Your task to perform on an android device: Show me popular games on the Play Store Image 0: 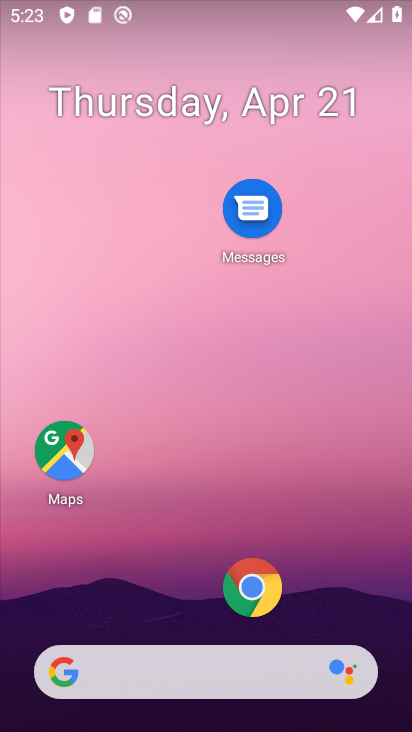
Step 0: drag from (204, 612) to (213, 79)
Your task to perform on an android device: Show me popular games on the Play Store Image 1: 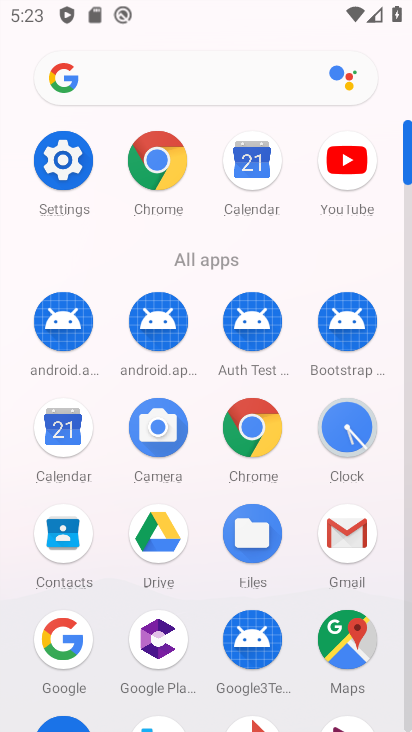
Step 1: drag from (202, 599) to (198, 165)
Your task to perform on an android device: Show me popular games on the Play Store Image 2: 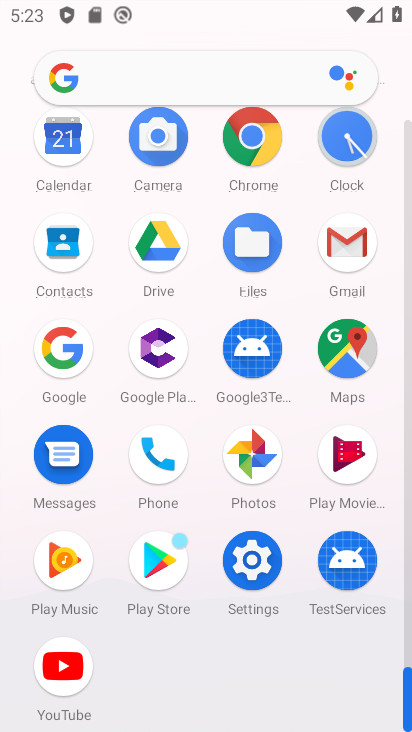
Step 2: click (153, 557)
Your task to perform on an android device: Show me popular games on the Play Store Image 3: 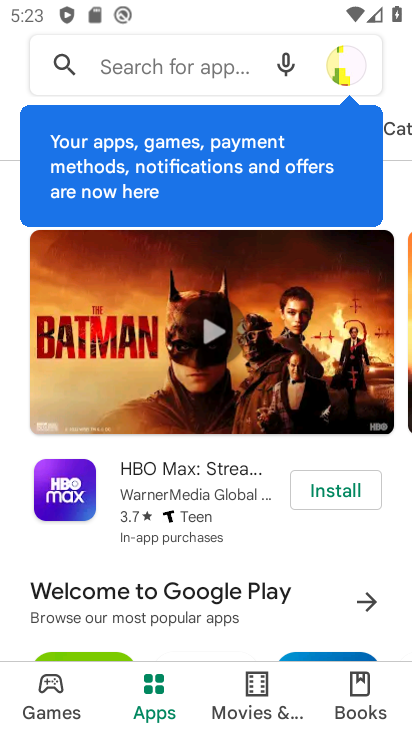
Step 3: click (52, 693)
Your task to perform on an android device: Show me popular games on the Play Store Image 4: 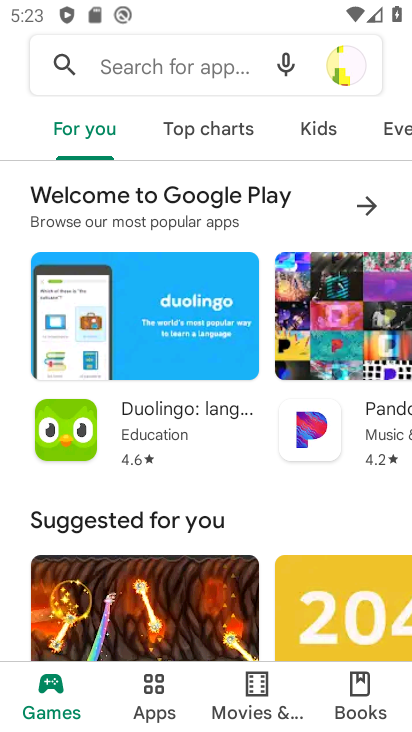
Step 4: drag from (356, 132) to (52, 142)
Your task to perform on an android device: Show me popular games on the Play Store Image 5: 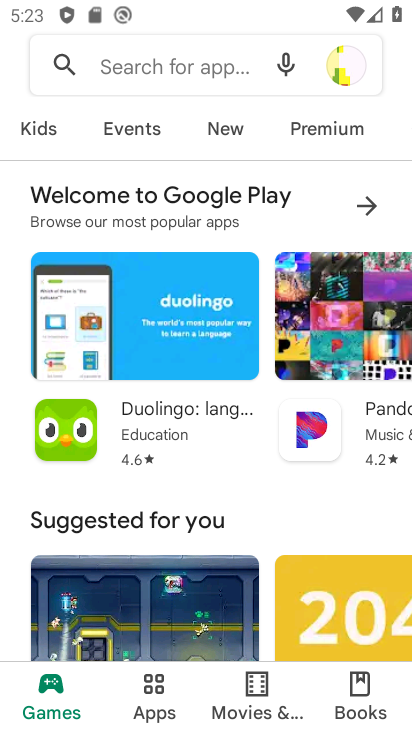
Step 5: drag from (354, 130) to (103, 127)
Your task to perform on an android device: Show me popular games on the Play Store Image 6: 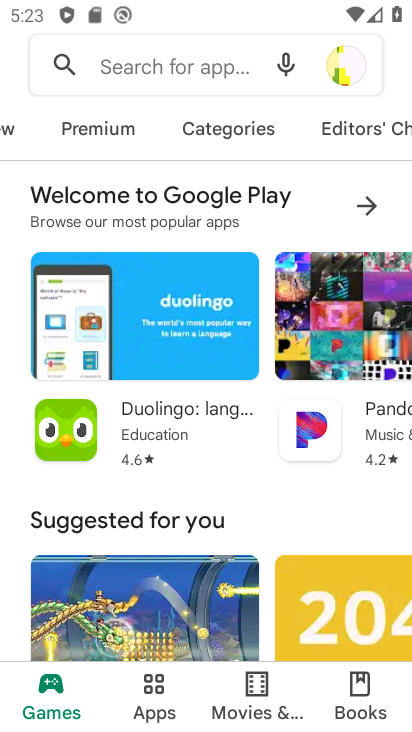
Step 6: click (227, 136)
Your task to perform on an android device: Show me popular games on the Play Store Image 7: 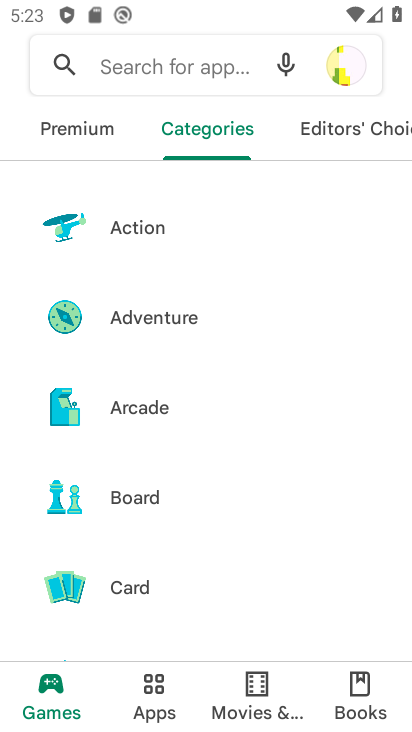
Step 7: drag from (218, 562) to (231, 13)
Your task to perform on an android device: Show me popular games on the Play Store Image 8: 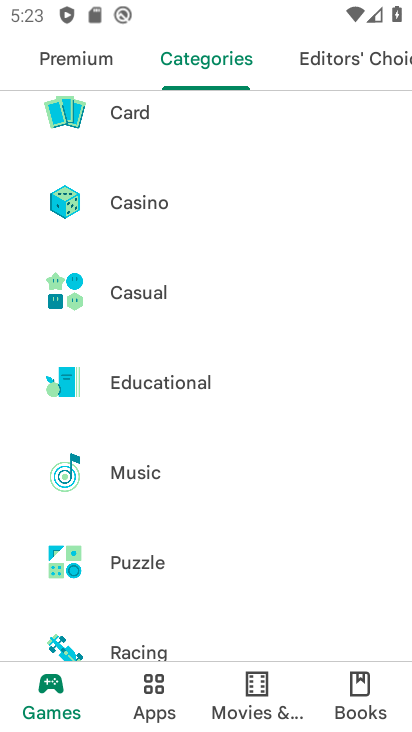
Step 8: drag from (208, 610) to (232, 30)
Your task to perform on an android device: Show me popular games on the Play Store Image 9: 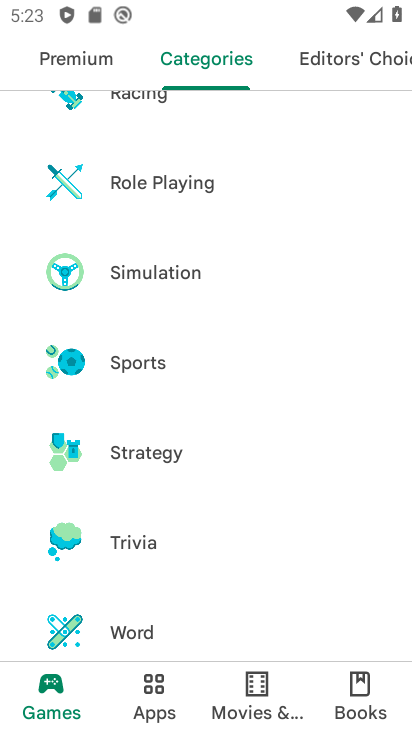
Step 9: drag from (197, 630) to (255, 326)
Your task to perform on an android device: Show me popular games on the Play Store Image 10: 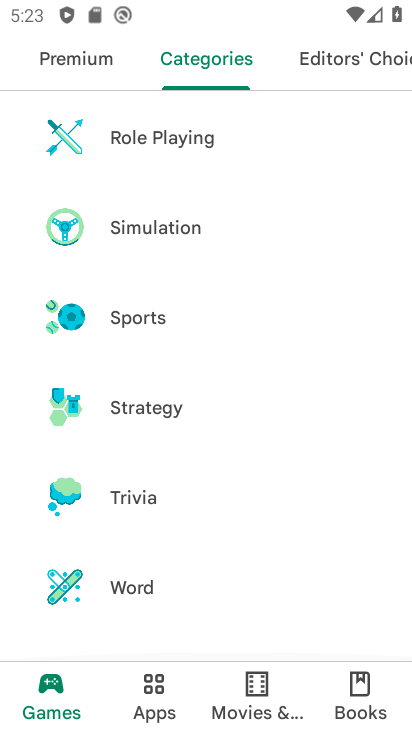
Step 10: drag from (227, 249) to (233, 630)
Your task to perform on an android device: Show me popular games on the Play Store Image 11: 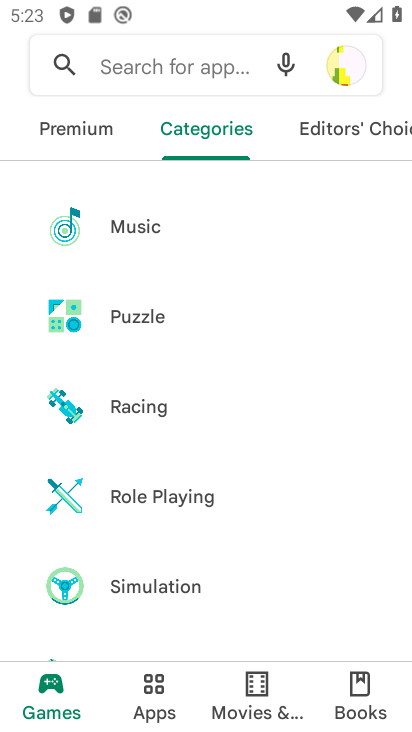
Step 11: drag from (75, 133) to (402, 168)
Your task to perform on an android device: Show me popular games on the Play Store Image 12: 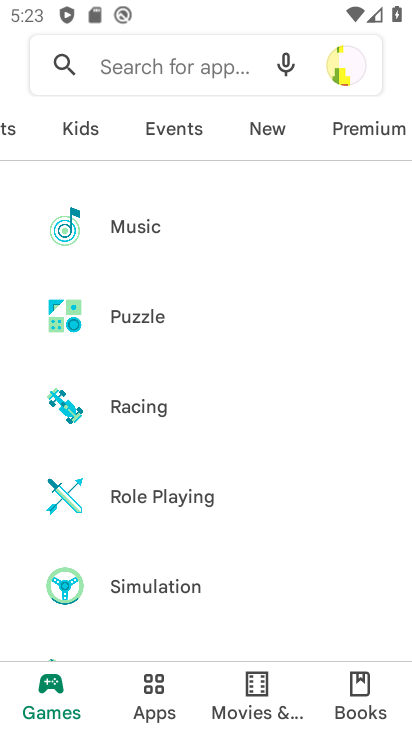
Step 12: drag from (60, 133) to (344, 147)
Your task to perform on an android device: Show me popular games on the Play Store Image 13: 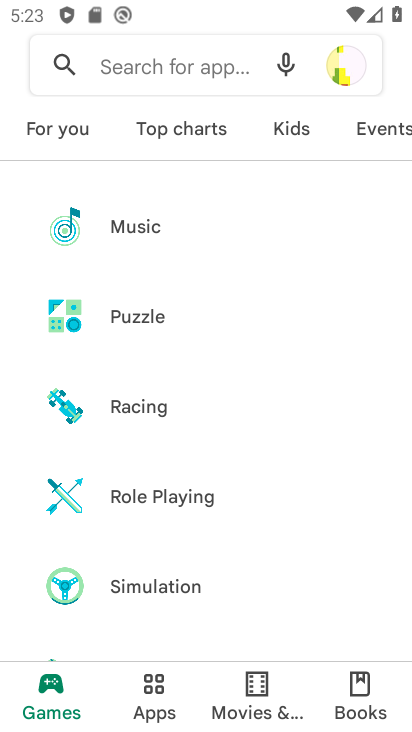
Step 13: click (50, 131)
Your task to perform on an android device: Show me popular games on the Play Store Image 14: 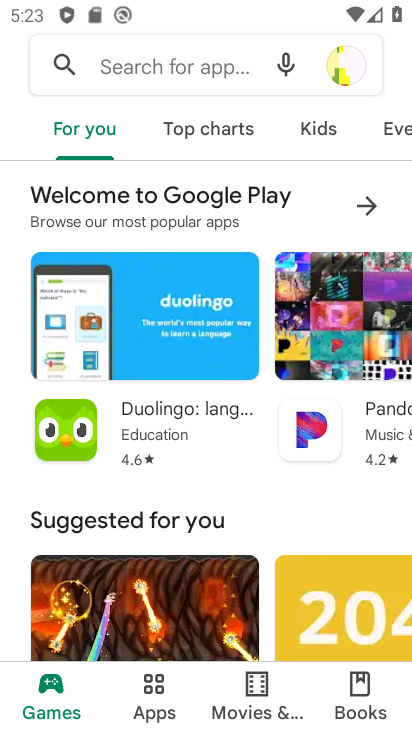
Step 14: drag from (172, 548) to (205, 209)
Your task to perform on an android device: Show me popular games on the Play Store Image 15: 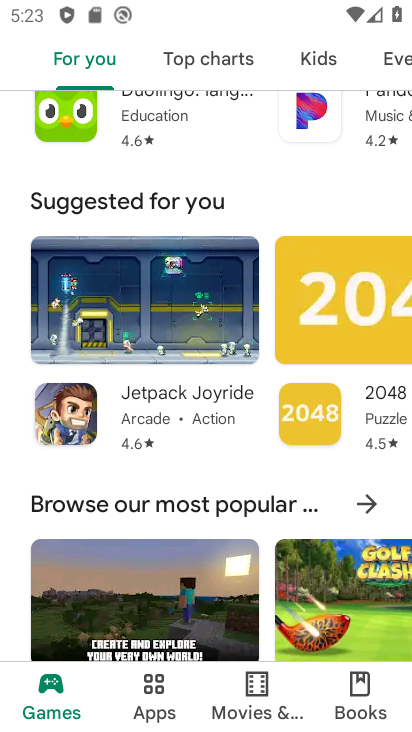
Step 15: click (365, 503)
Your task to perform on an android device: Show me popular games on the Play Store Image 16: 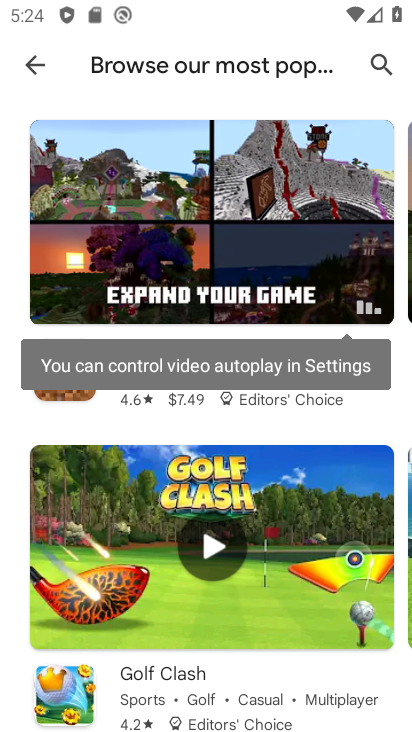
Step 16: task complete